Your task to perform on an android device: Open Google Image 0: 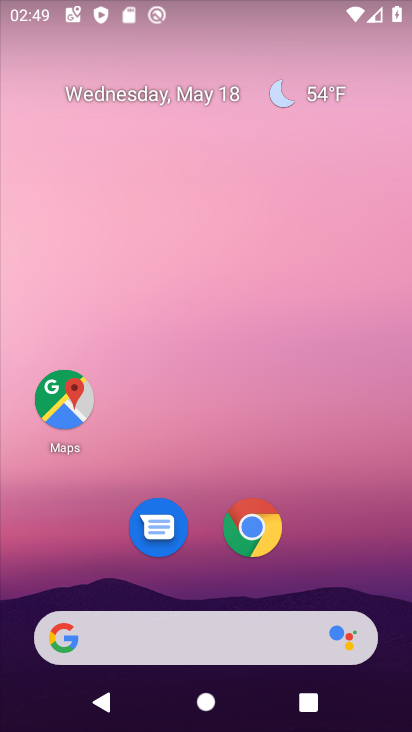
Step 0: drag from (177, 598) to (75, 45)
Your task to perform on an android device: Open Google Image 1: 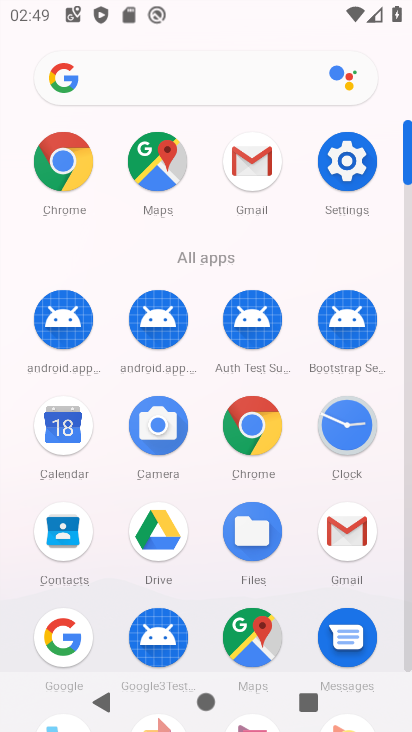
Step 1: click (46, 632)
Your task to perform on an android device: Open Google Image 2: 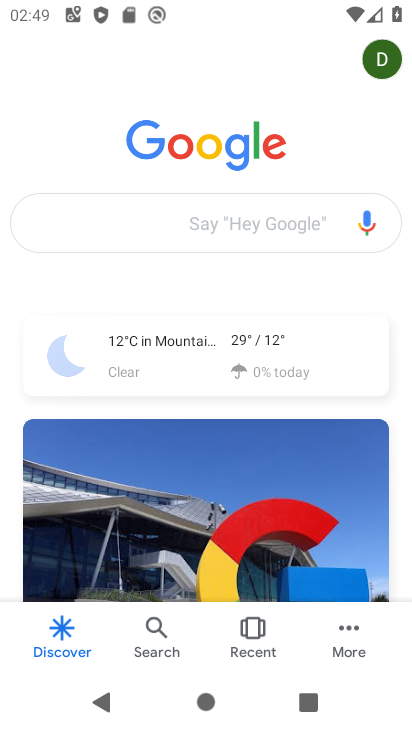
Step 2: click (146, 246)
Your task to perform on an android device: Open Google Image 3: 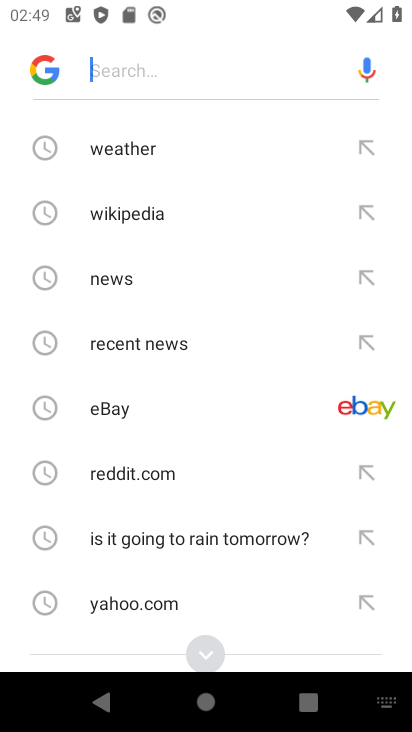
Step 3: task complete